Your task to perform on an android device: Open ESPN.com Image 0: 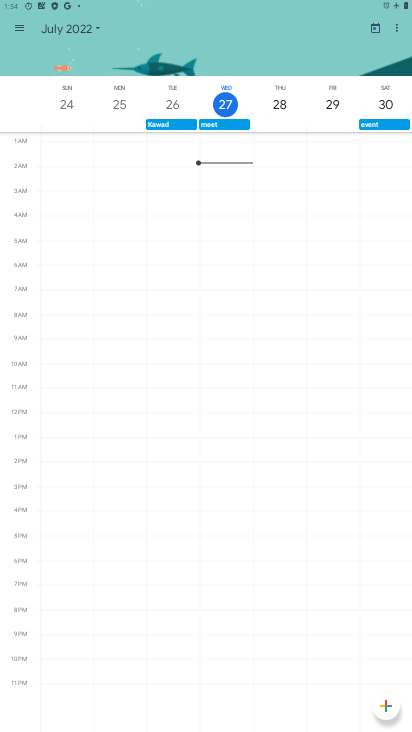
Step 0: press home button
Your task to perform on an android device: Open ESPN.com Image 1: 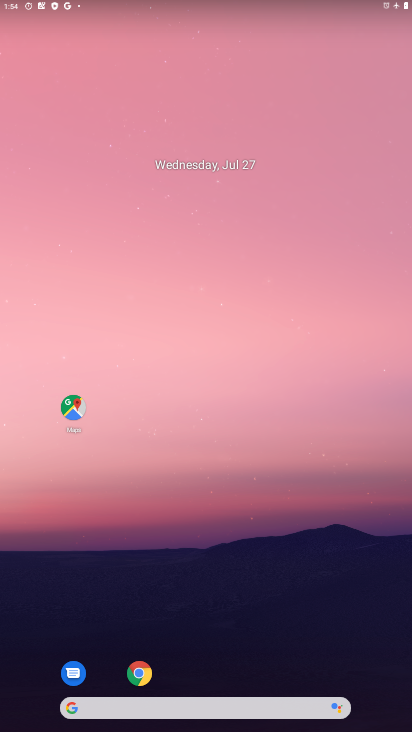
Step 1: click (136, 676)
Your task to perform on an android device: Open ESPN.com Image 2: 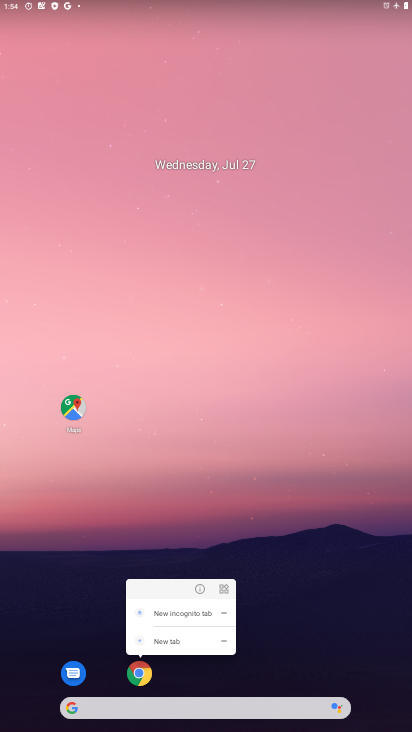
Step 2: click (136, 676)
Your task to perform on an android device: Open ESPN.com Image 3: 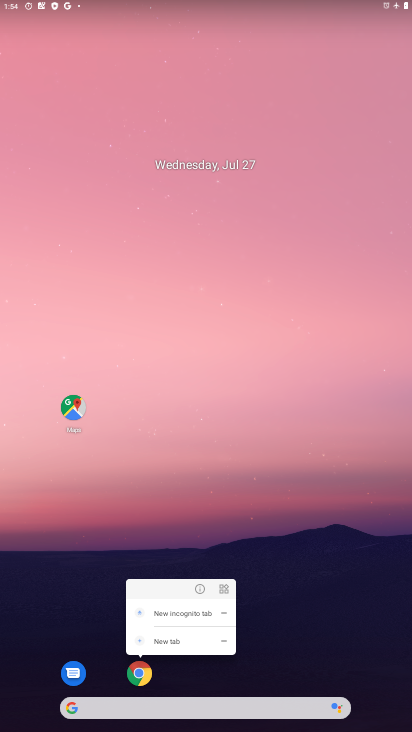
Step 3: click (136, 676)
Your task to perform on an android device: Open ESPN.com Image 4: 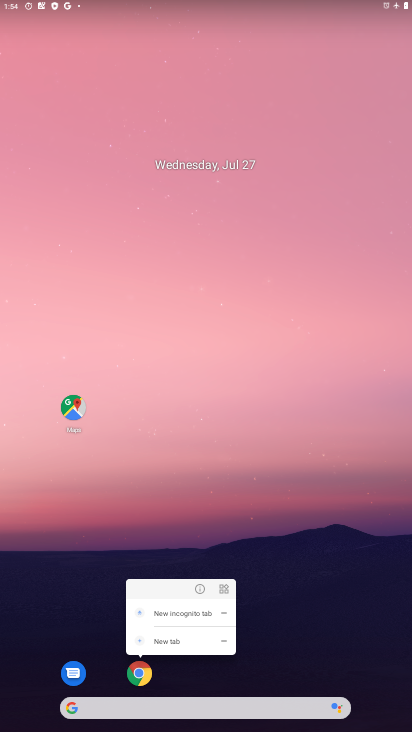
Step 4: click (136, 676)
Your task to perform on an android device: Open ESPN.com Image 5: 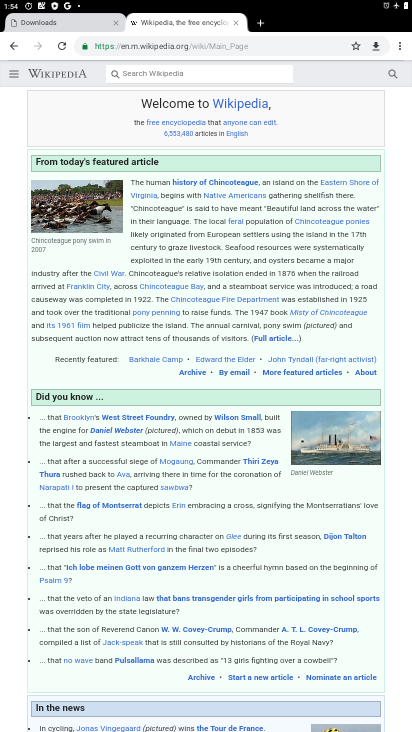
Step 5: click (186, 46)
Your task to perform on an android device: Open ESPN.com Image 6: 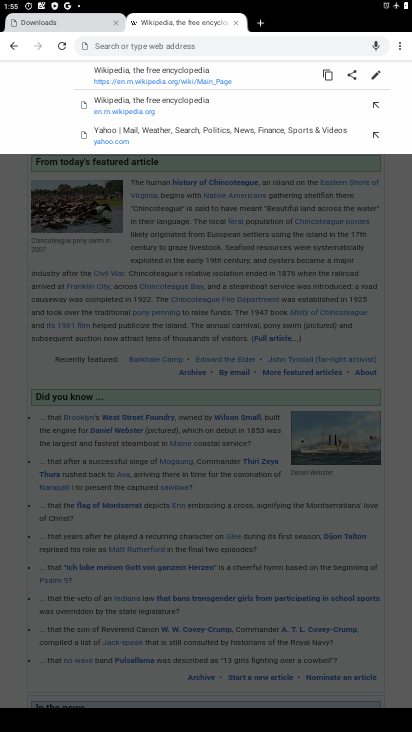
Step 6: type "espn.com"
Your task to perform on an android device: Open ESPN.com Image 7: 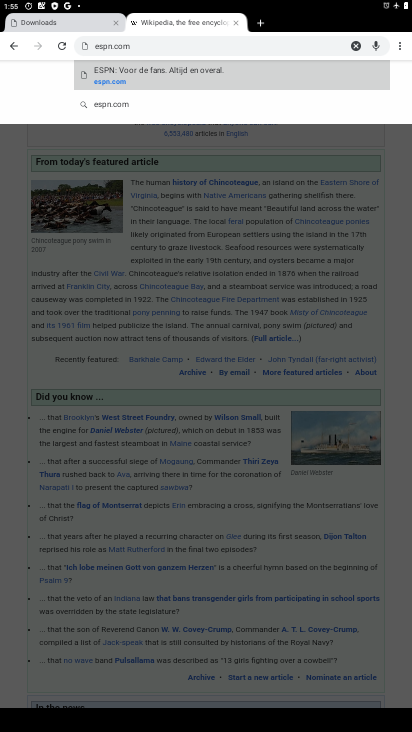
Step 7: click (114, 77)
Your task to perform on an android device: Open ESPN.com Image 8: 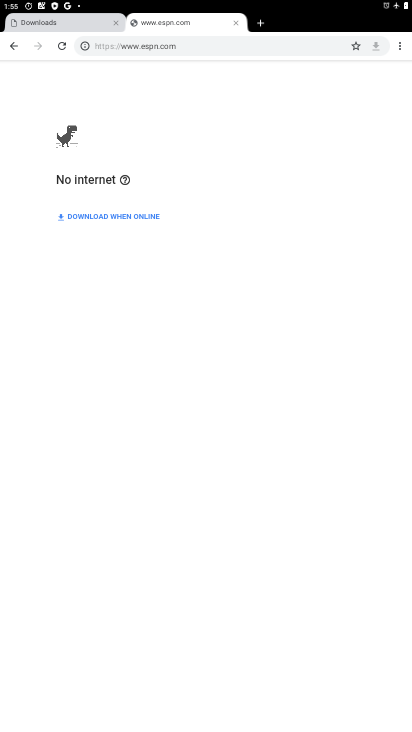
Step 8: task complete